Your task to perform on an android device: turn off translation in the chrome app Image 0: 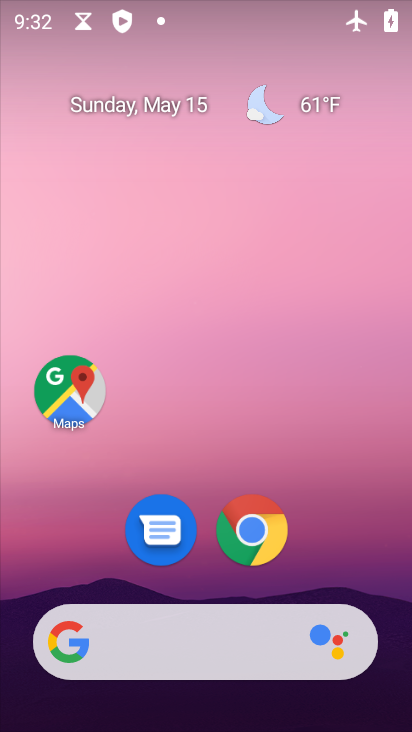
Step 0: click (260, 530)
Your task to perform on an android device: turn off translation in the chrome app Image 1: 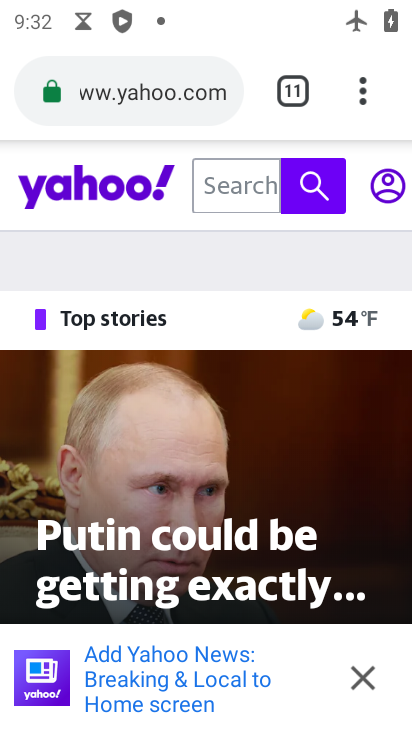
Step 1: click (366, 105)
Your task to perform on an android device: turn off translation in the chrome app Image 2: 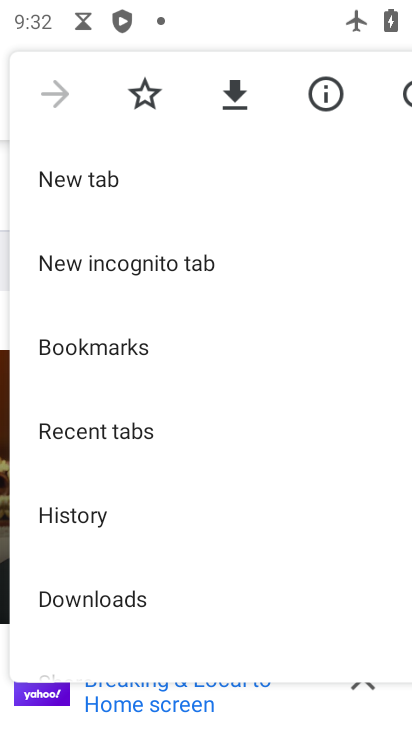
Step 2: drag from (162, 589) to (177, 191)
Your task to perform on an android device: turn off translation in the chrome app Image 3: 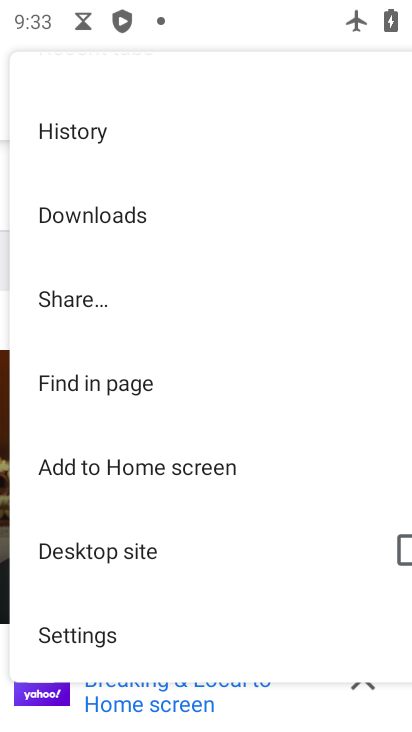
Step 3: drag from (126, 600) to (136, 202)
Your task to perform on an android device: turn off translation in the chrome app Image 4: 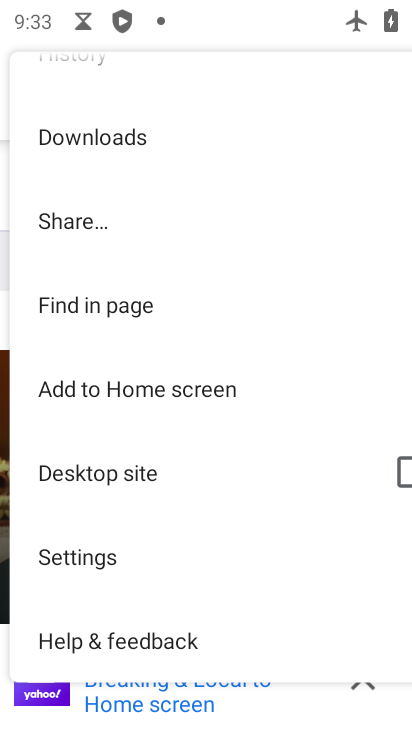
Step 4: click (87, 555)
Your task to perform on an android device: turn off translation in the chrome app Image 5: 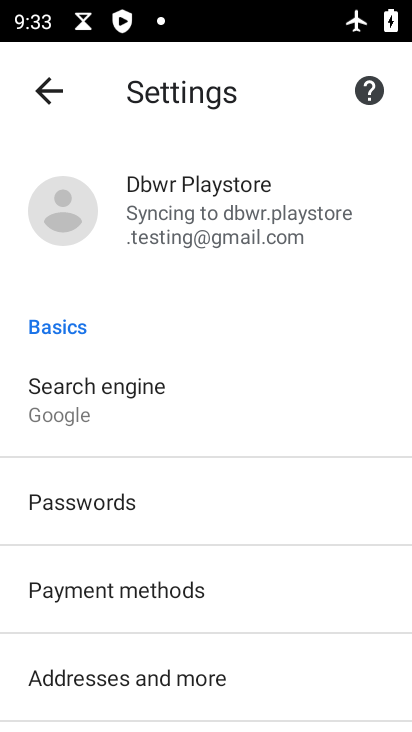
Step 5: drag from (166, 610) to (164, 210)
Your task to perform on an android device: turn off translation in the chrome app Image 6: 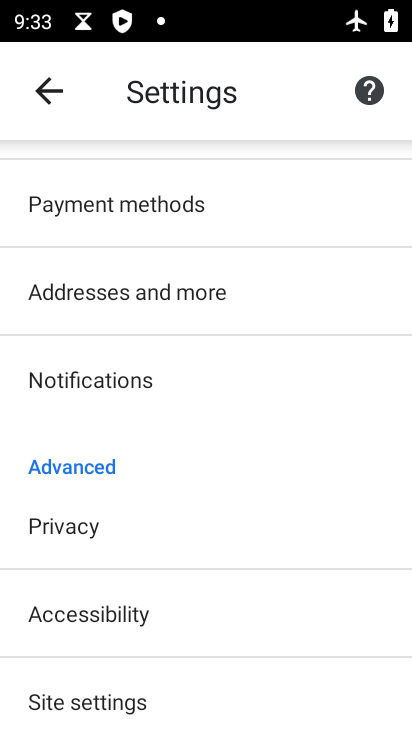
Step 6: drag from (150, 647) to (150, 263)
Your task to perform on an android device: turn off translation in the chrome app Image 7: 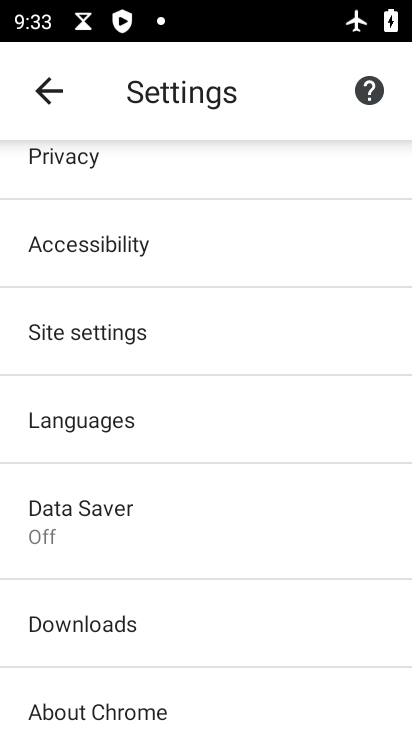
Step 7: click (100, 421)
Your task to perform on an android device: turn off translation in the chrome app Image 8: 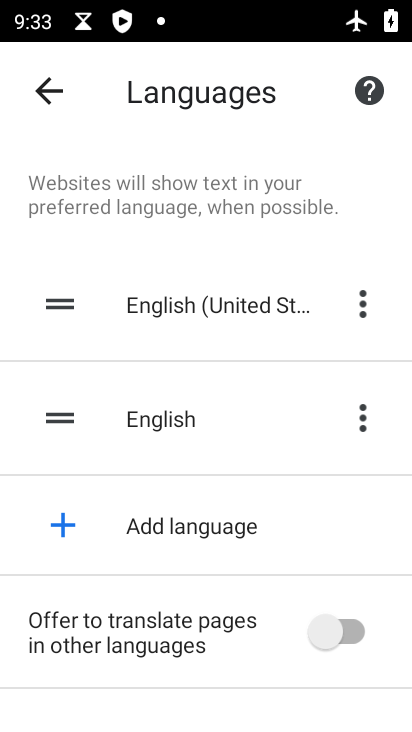
Step 8: task complete